Your task to perform on an android device: Go to Maps Image 0: 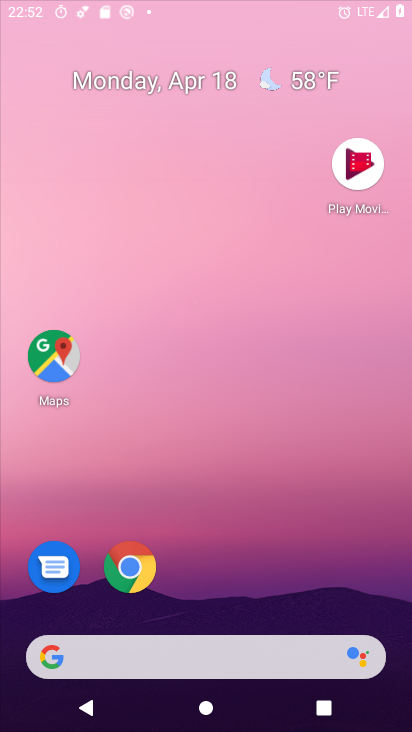
Step 0: drag from (176, 93) to (182, 49)
Your task to perform on an android device: Go to Maps Image 1: 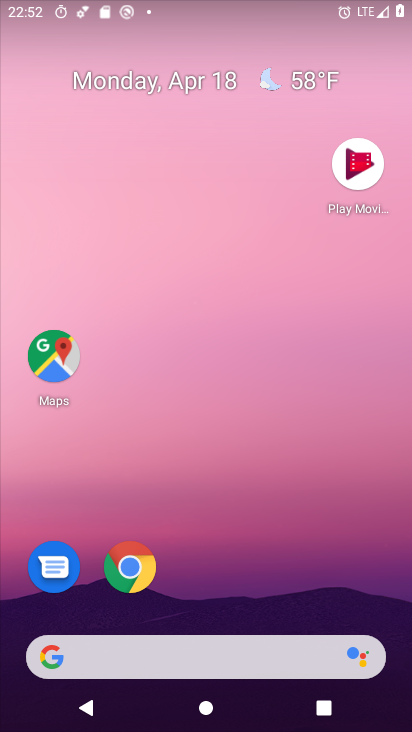
Step 1: drag from (178, 586) to (279, 136)
Your task to perform on an android device: Go to Maps Image 2: 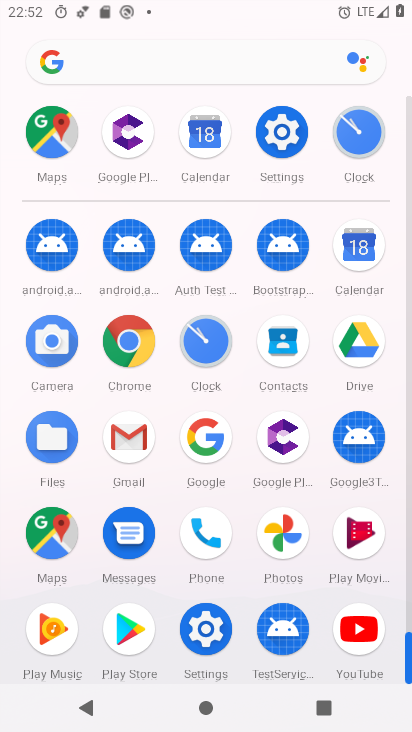
Step 2: click (57, 131)
Your task to perform on an android device: Go to Maps Image 3: 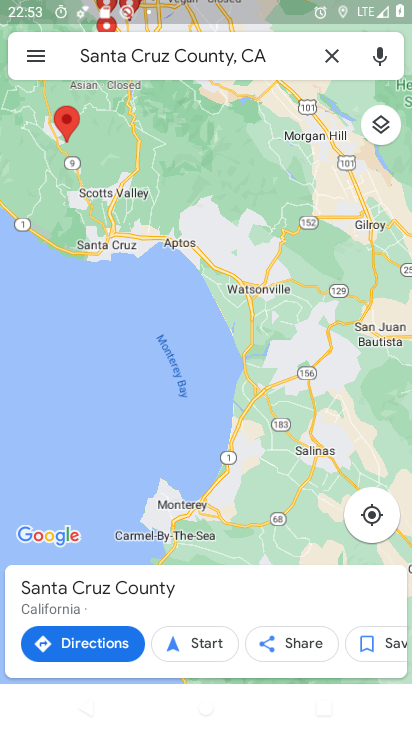
Step 3: task complete